Your task to perform on an android device: Do I have any events tomorrow? Image 0: 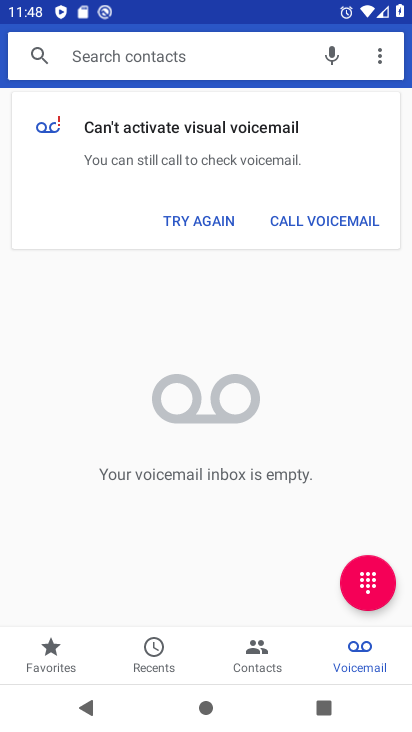
Step 0: press home button
Your task to perform on an android device: Do I have any events tomorrow? Image 1: 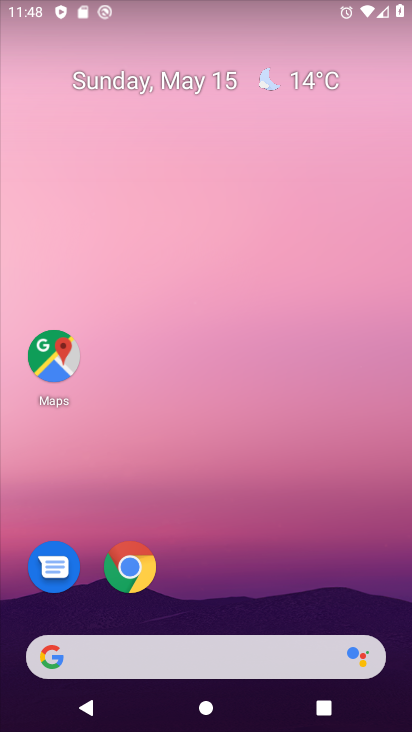
Step 1: drag from (240, 603) to (195, 41)
Your task to perform on an android device: Do I have any events tomorrow? Image 2: 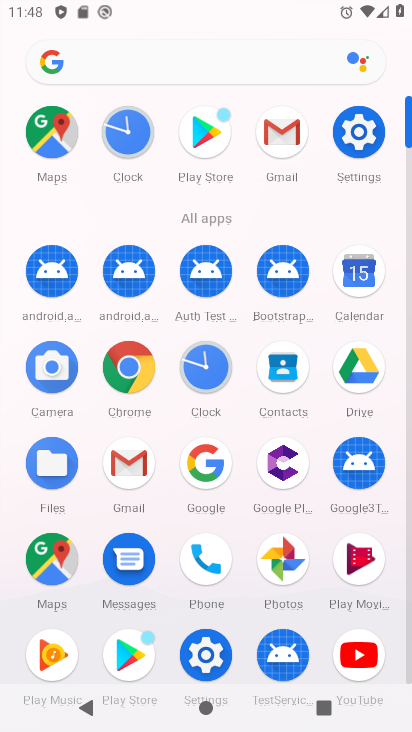
Step 2: click (361, 272)
Your task to perform on an android device: Do I have any events tomorrow? Image 3: 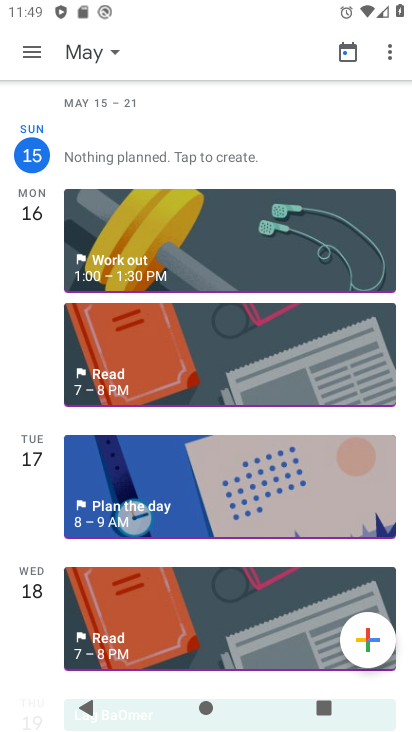
Step 3: click (72, 53)
Your task to perform on an android device: Do I have any events tomorrow? Image 4: 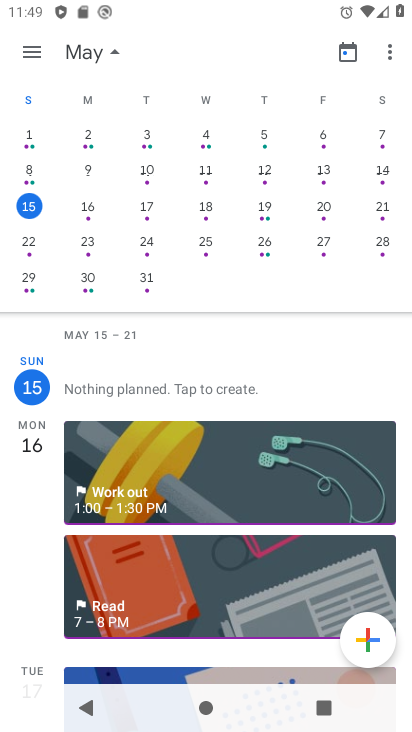
Step 4: click (87, 201)
Your task to perform on an android device: Do I have any events tomorrow? Image 5: 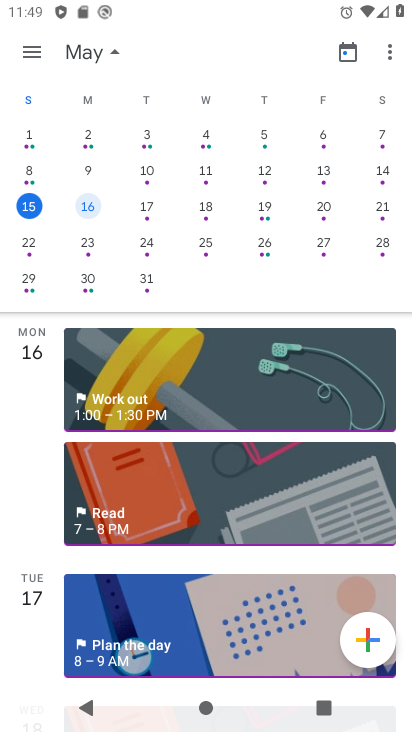
Step 5: task complete